Your task to perform on an android device: Open Google Chrome Image 0: 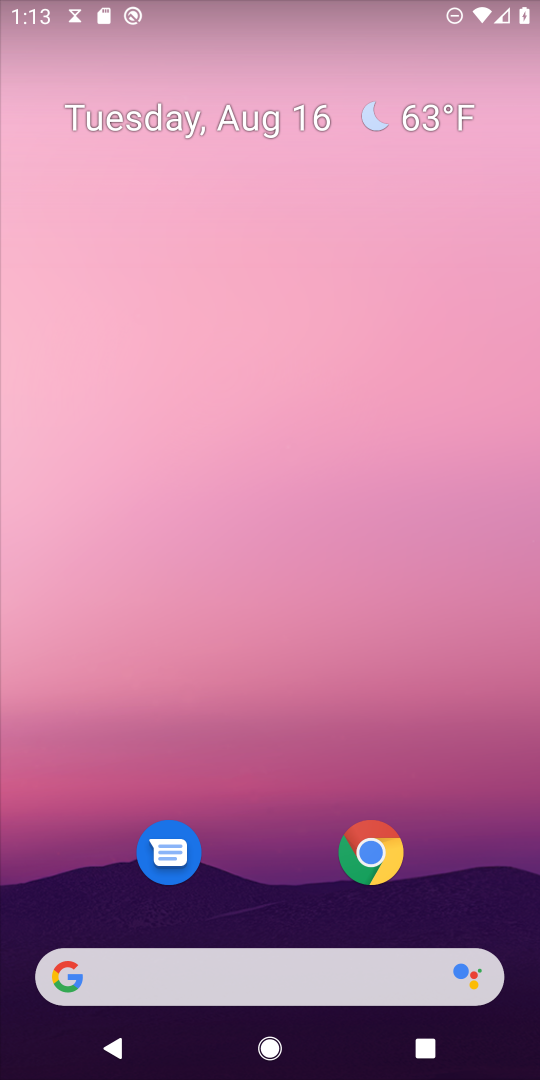
Step 0: click (382, 847)
Your task to perform on an android device: Open Google Chrome Image 1: 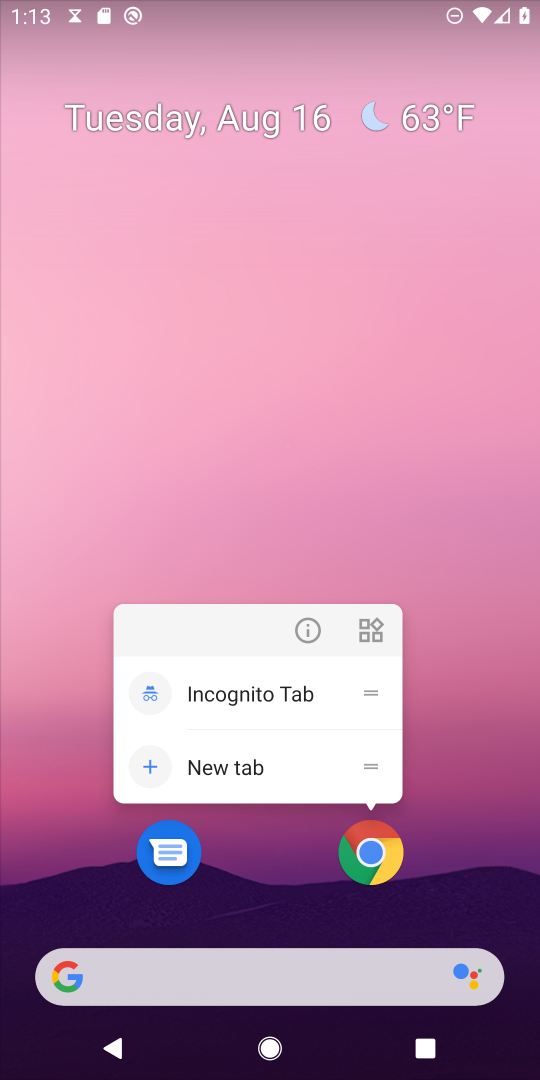
Step 1: click (382, 847)
Your task to perform on an android device: Open Google Chrome Image 2: 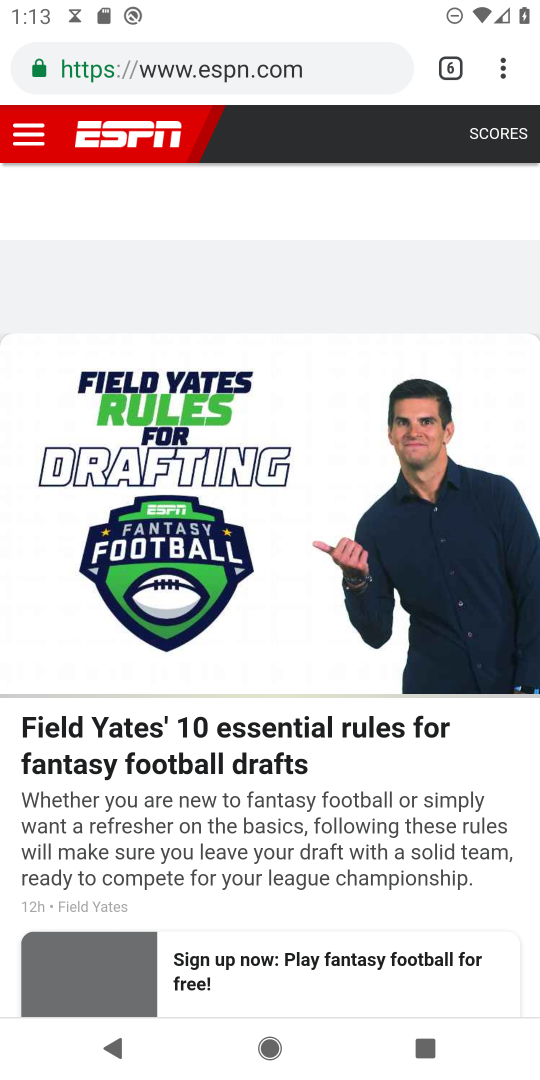
Step 2: task complete